Your task to perform on an android device: toggle location history Image 0: 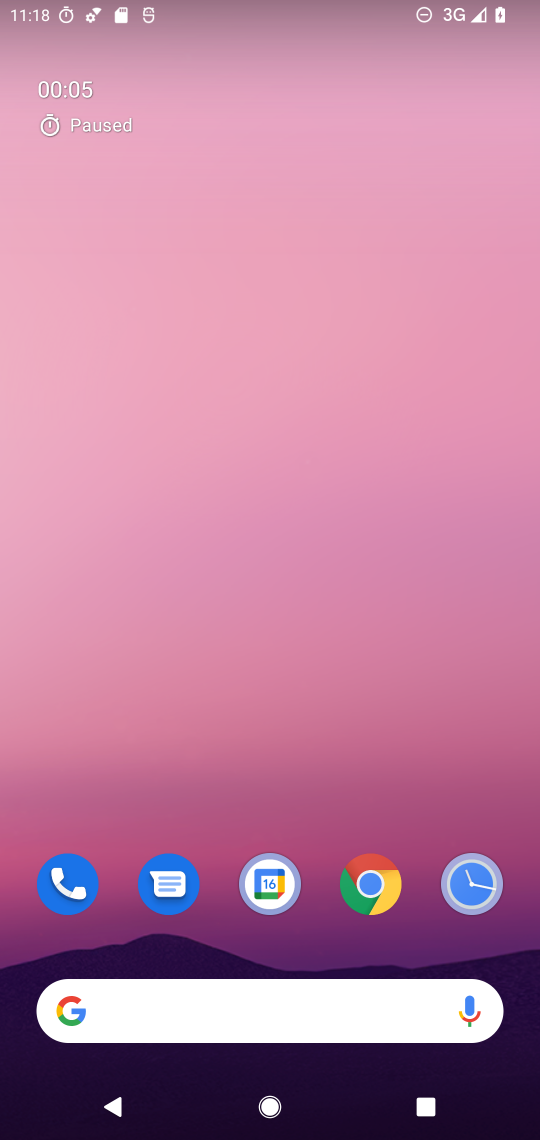
Step 0: drag from (253, 940) to (246, 28)
Your task to perform on an android device: toggle location history Image 1: 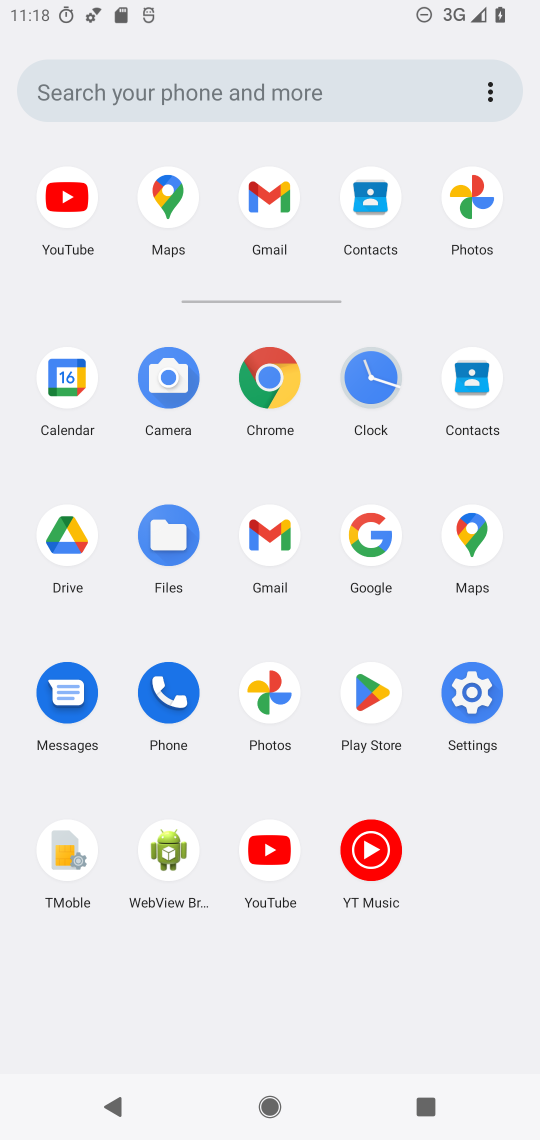
Step 1: click (466, 698)
Your task to perform on an android device: toggle location history Image 2: 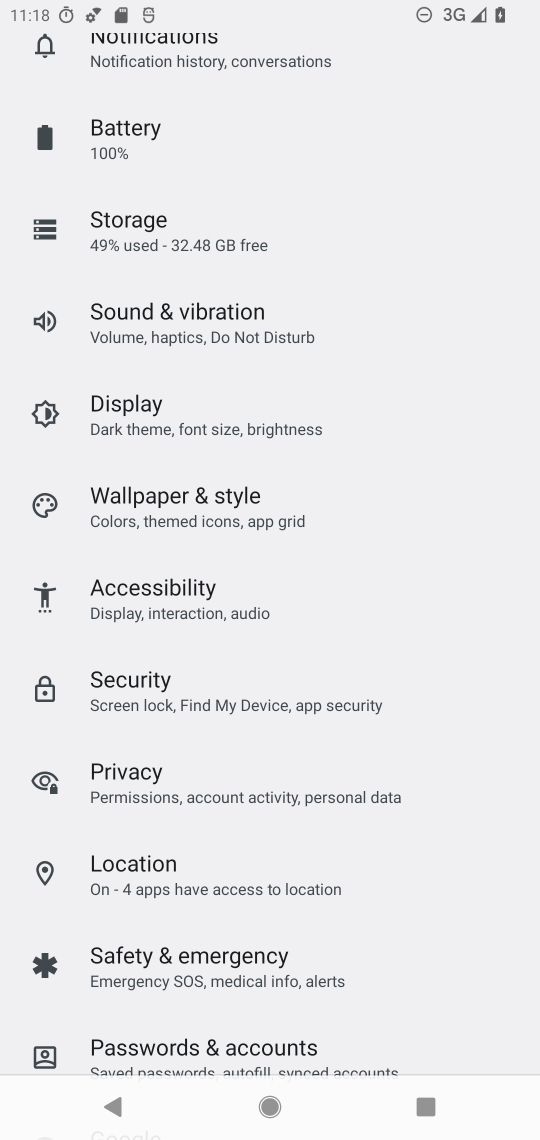
Step 2: click (156, 879)
Your task to perform on an android device: toggle location history Image 3: 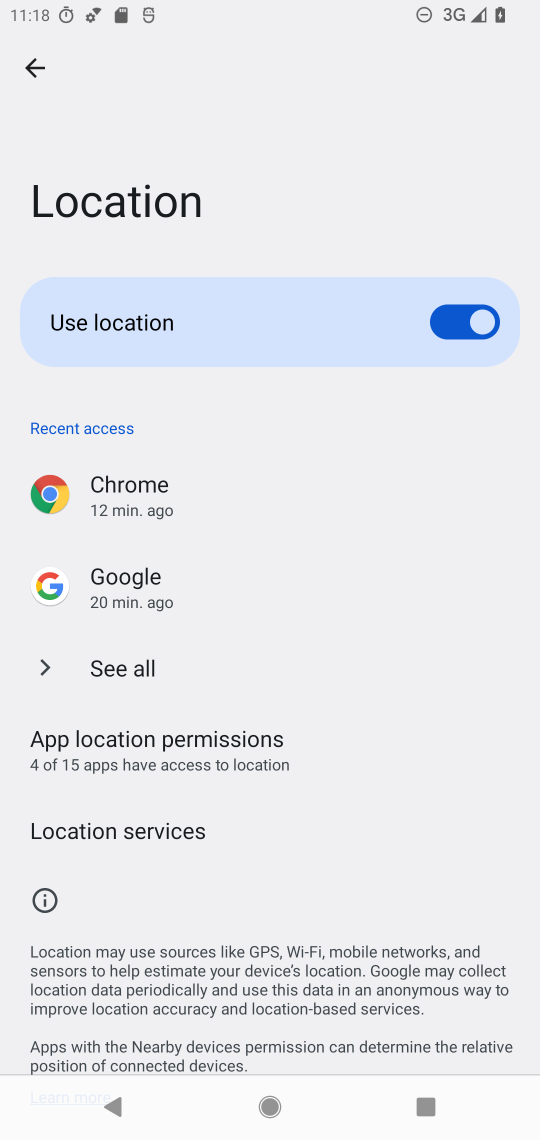
Step 3: click (108, 839)
Your task to perform on an android device: toggle location history Image 4: 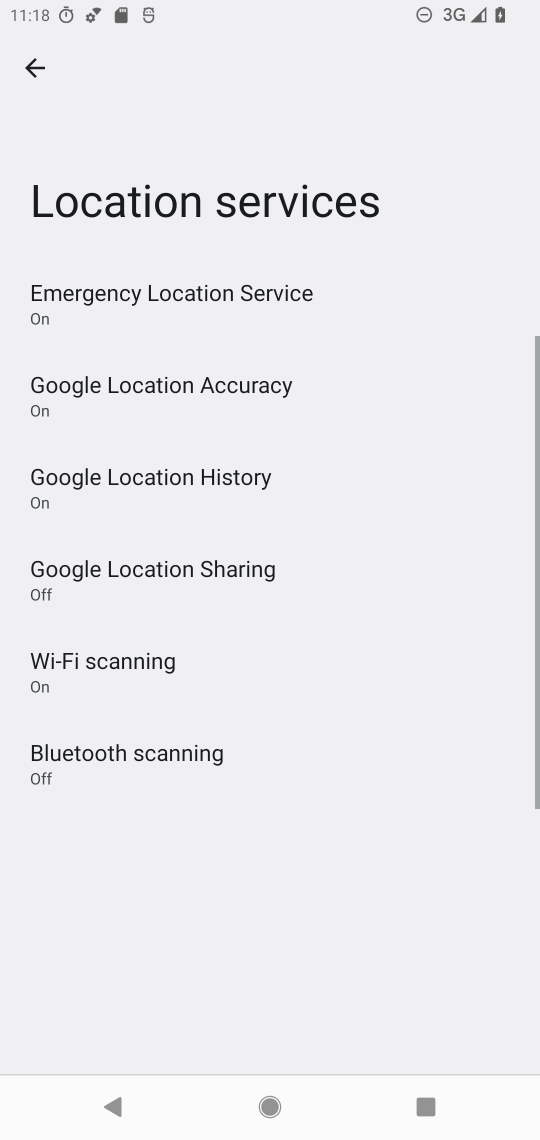
Step 4: click (194, 490)
Your task to perform on an android device: toggle location history Image 5: 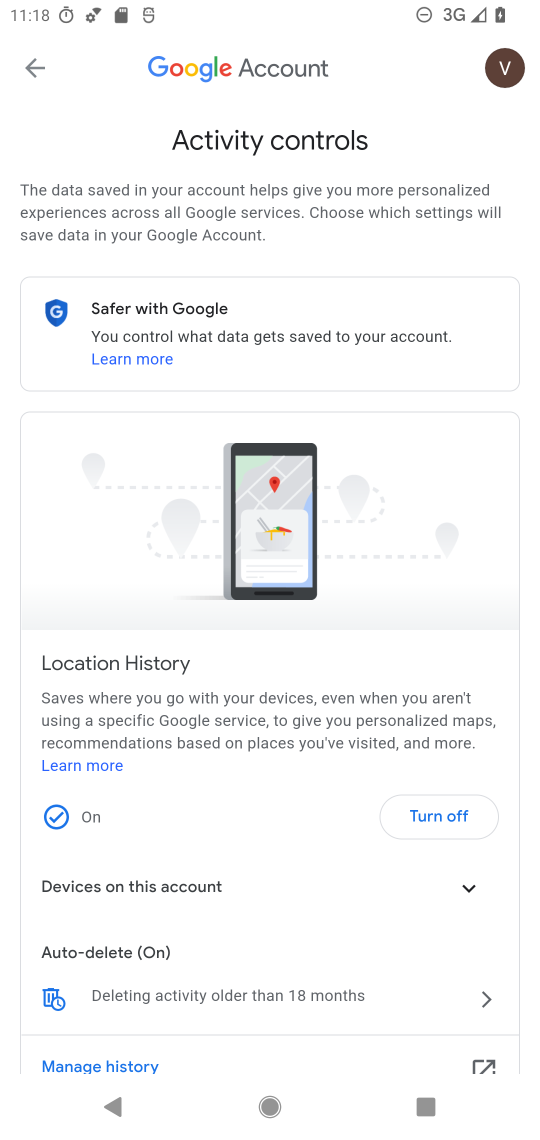
Step 5: click (444, 800)
Your task to perform on an android device: toggle location history Image 6: 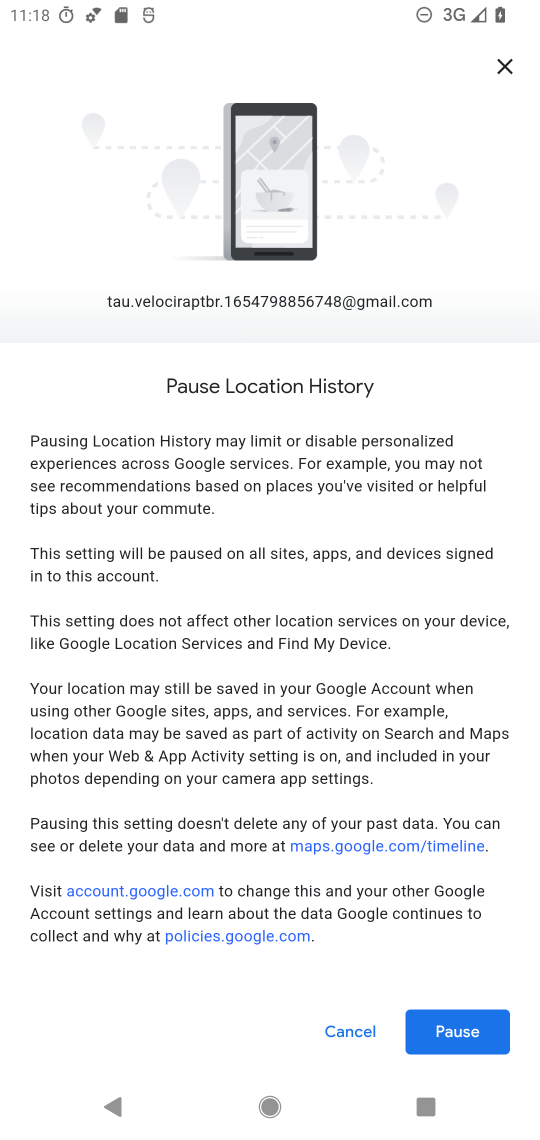
Step 6: click (452, 1025)
Your task to perform on an android device: toggle location history Image 7: 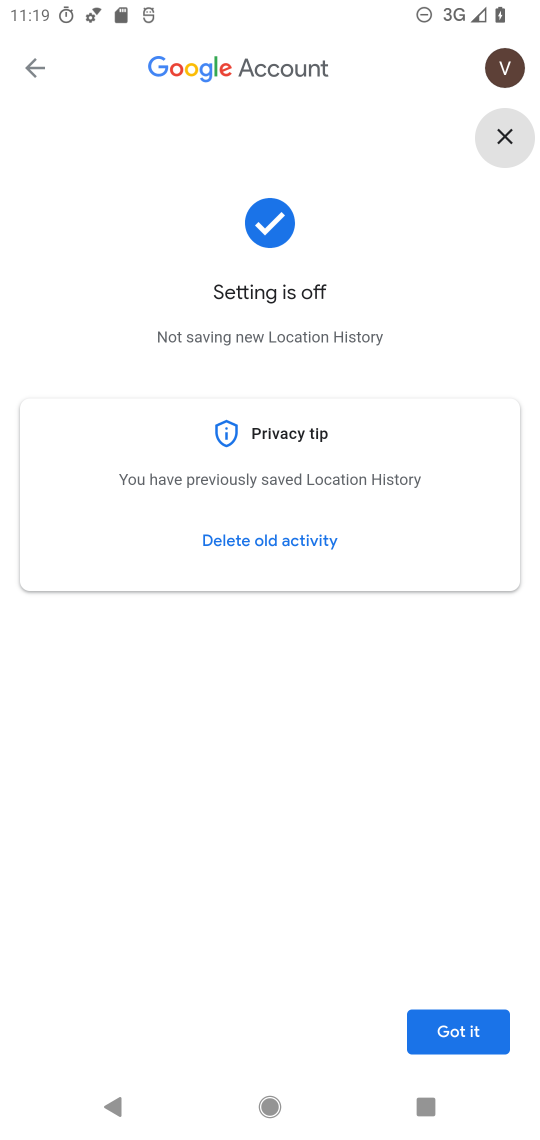
Step 7: click (452, 1025)
Your task to perform on an android device: toggle location history Image 8: 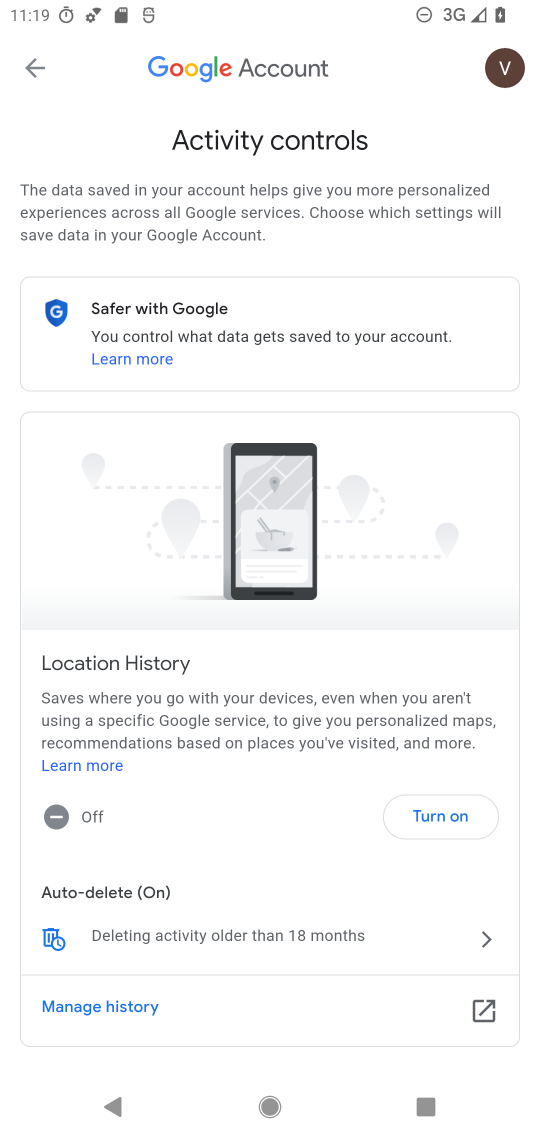
Step 8: task complete